Your task to perform on an android device: find snoozed emails in the gmail app Image 0: 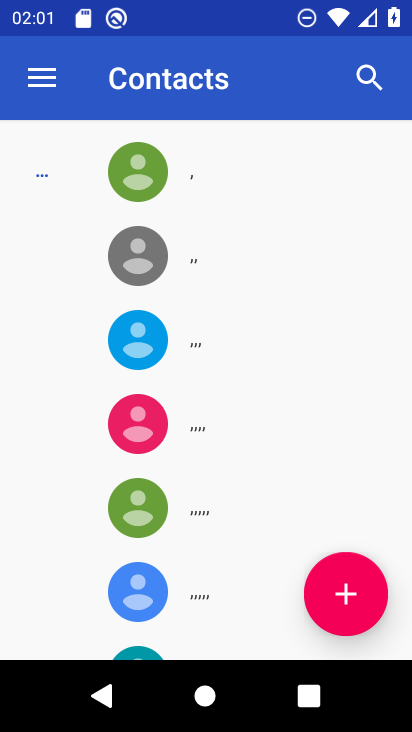
Step 0: press home button
Your task to perform on an android device: find snoozed emails in the gmail app Image 1: 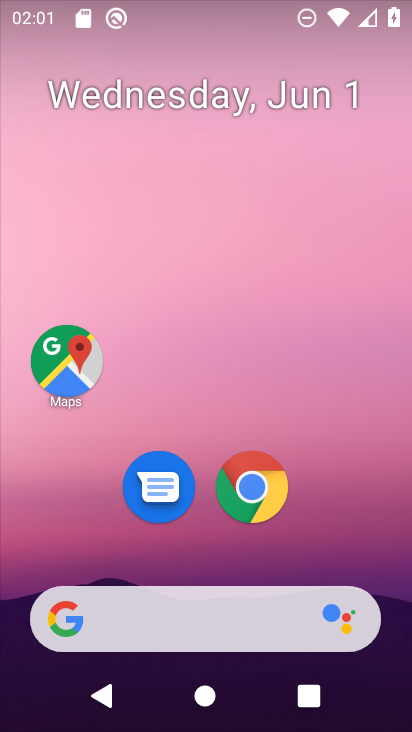
Step 1: drag from (274, 466) to (277, 281)
Your task to perform on an android device: find snoozed emails in the gmail app Image 2: 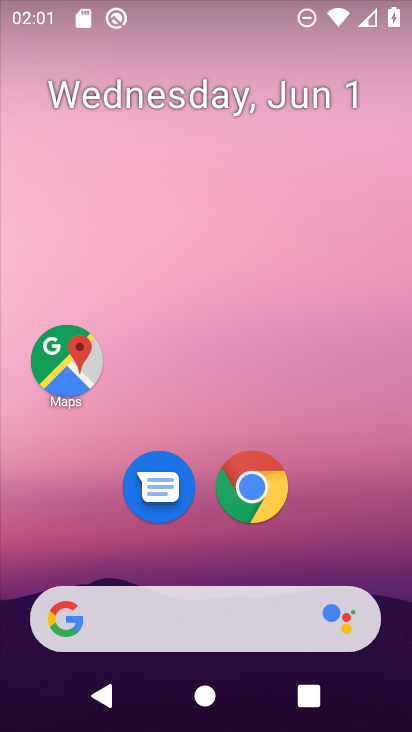
Step 2: drag from (230, 542) to (253, 186)
Your task to perform on an android device: find snoozed emails in the gmail app Image 3: 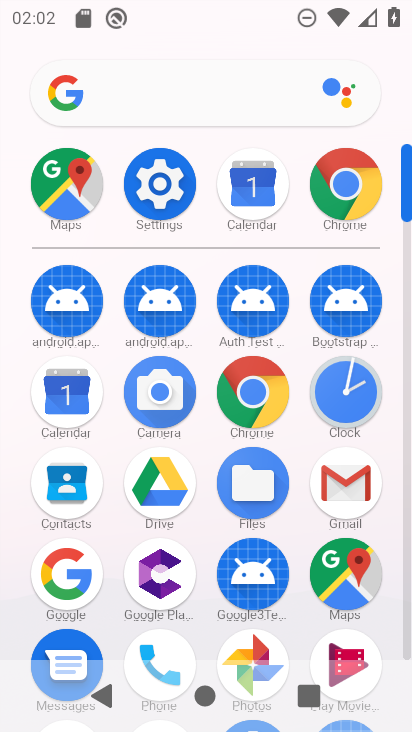
Step 3: click (338, 483)
Your task to perform on an android device: find snoozed emails in the gmail app Image 4: 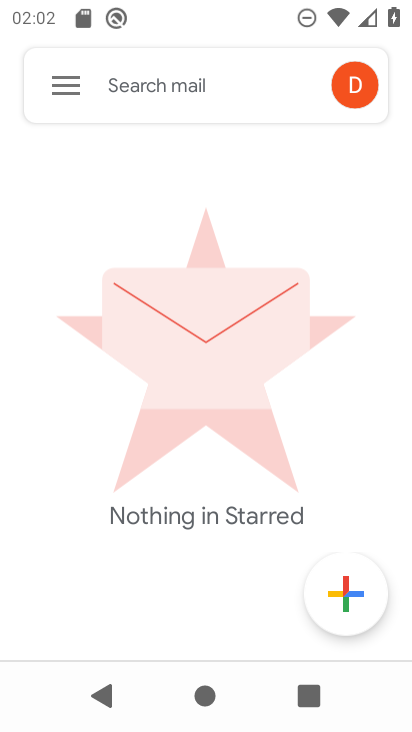
Step 4: click (70, 77)
Your task to perform on an android device: find snoozed emails in the gmail app Image 5: 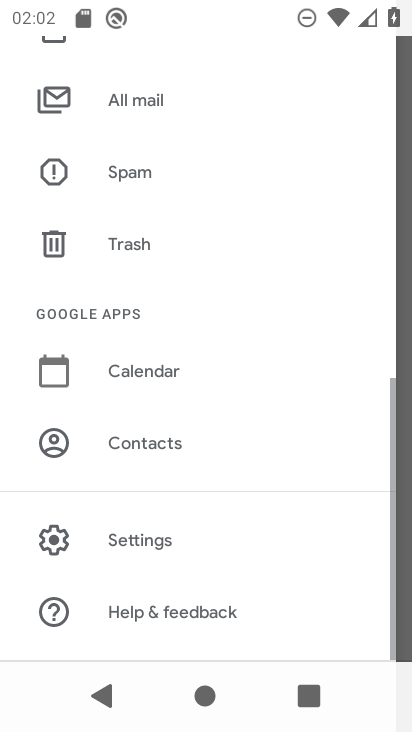
Step 5: drag from (160, 259) to (186, 534)
Your task to perform on an android device: find snoozed emails in the gmail app Image 6: 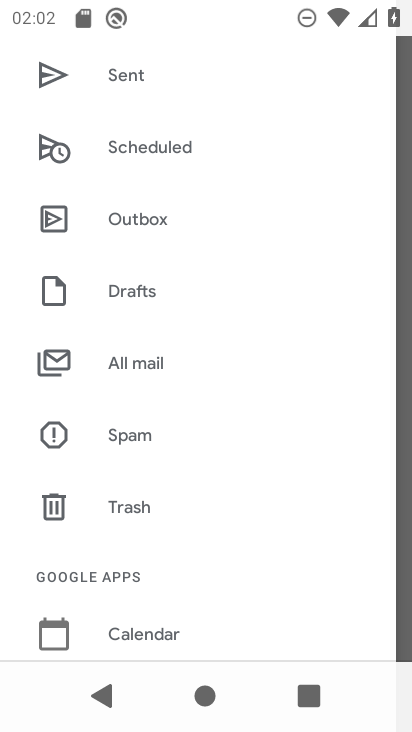
Step 6: drag from (144, 205) to (164, 488)
Your task to perform on an android device: find snoozed emails in the gmail app Image 7: 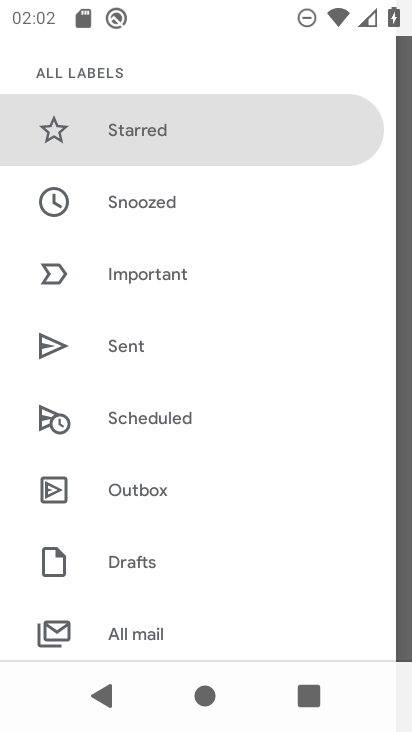
Step 7: click (155, 206)
Your task to perform on an android device: find snoozed emails in the gmail app Image 8: 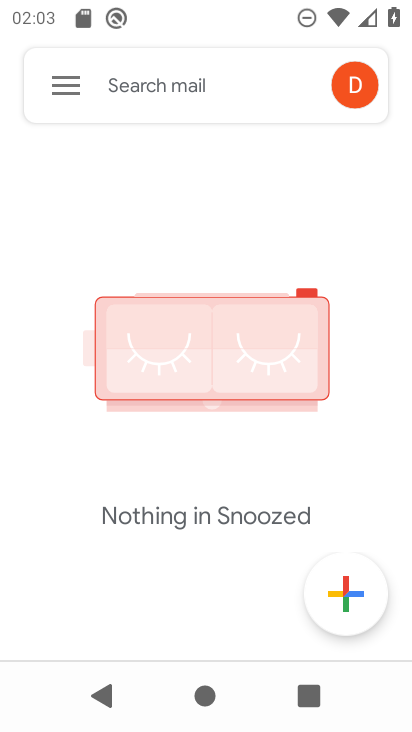
Step 8: task complete